Your task to perform on an android device: create a new album in the google photos Image 0: 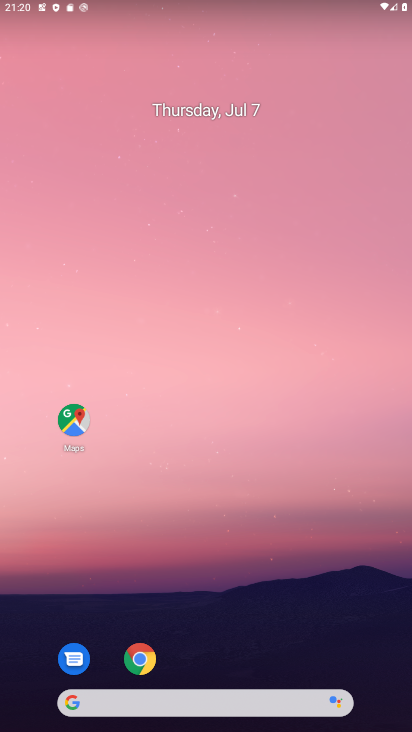
Step 0: drag from (211, 588) to (147, 0)
Your task to perform on an android device: create a new album in the google photos Image 1: 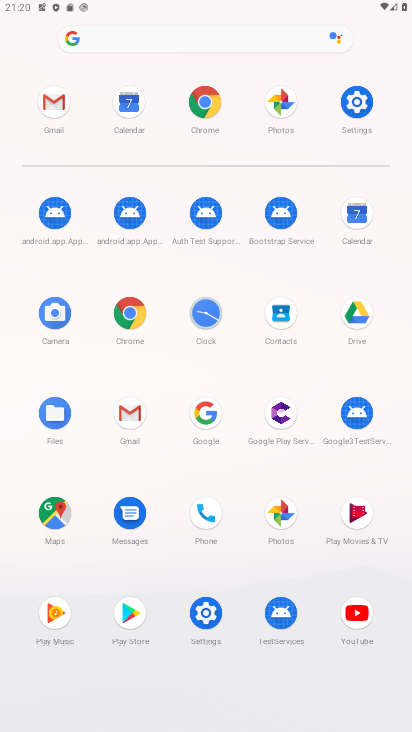
Step 1: click (282, 518)
Your task to perform on an android device: create a new album in the google photos Image 2: 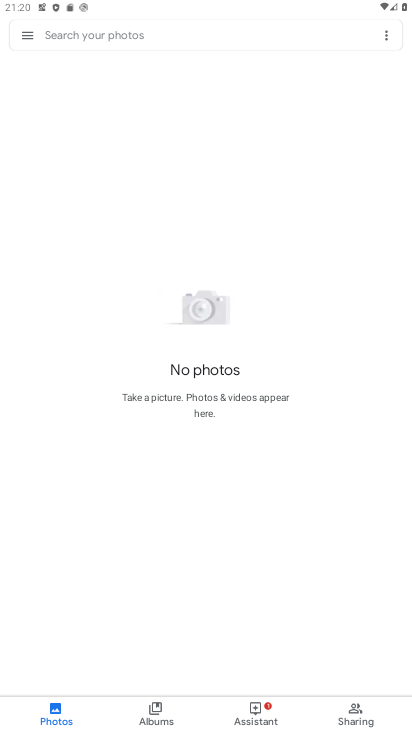
Step 2: task complete